Your task to perform on an android device: Show me popular games on the Play Store Image 0: 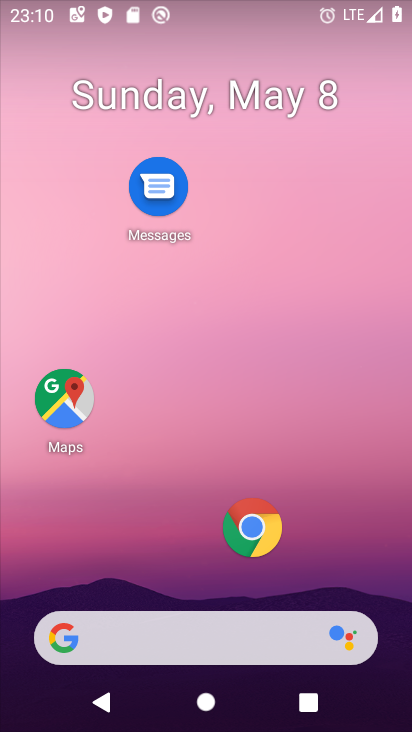
Step 0: drag from (190, 564) to (277, 6)
Your task to perform on an android device: Show me popular games on the Play Store Image 1: 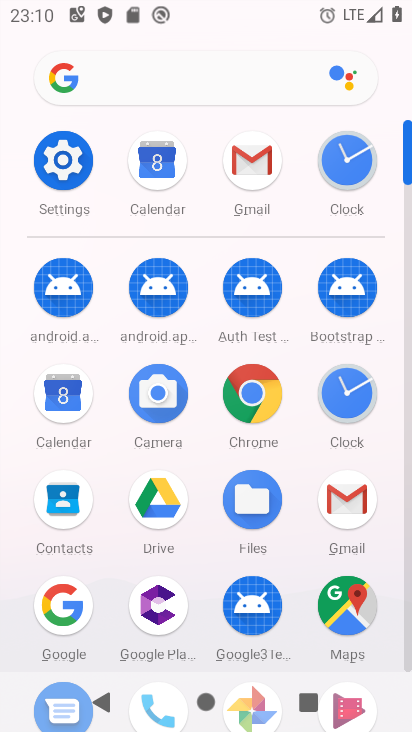
Step 1: drag from (207, 523) to (215, 182)
Your task to perform on an android device: Show me popular games on the Play Store Image 2: 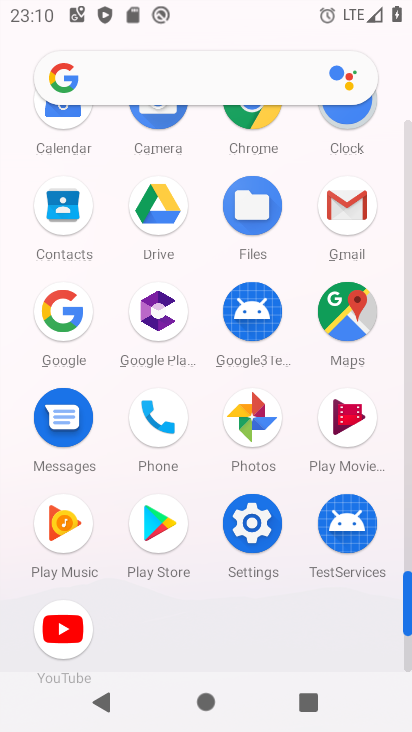
Step 2: click (157, 524)
Your task to perform on an android device: Show me popular games on the Play Store Image 3: 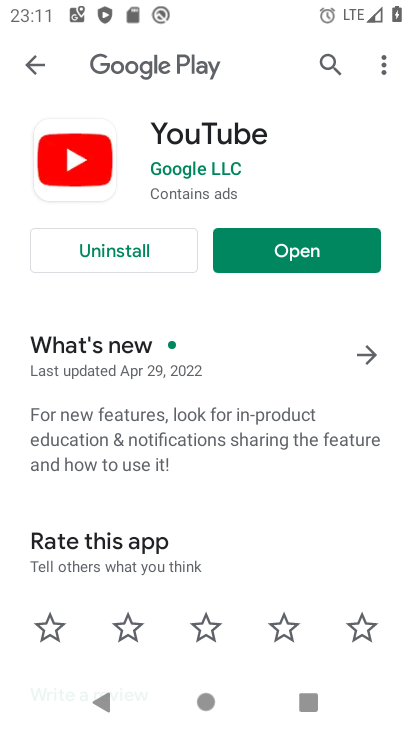
Step 3: press back button
Your task to perform on an android device: Show me popular games on the Play Store Image 4: 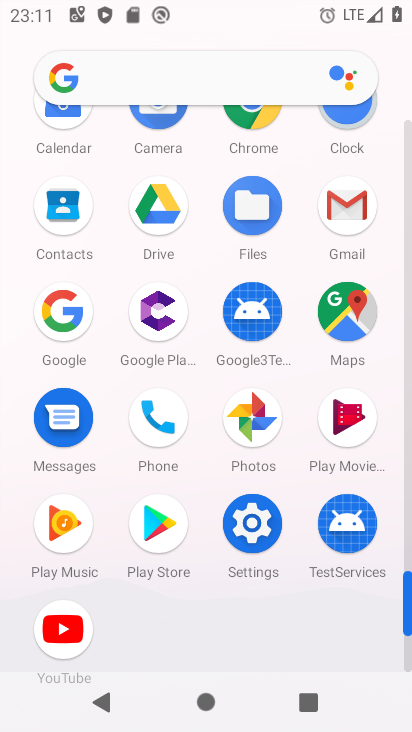
Step 4: click (163, 539)
Your task to perform on an android device: Show me popular games on the Play Store Image 5: 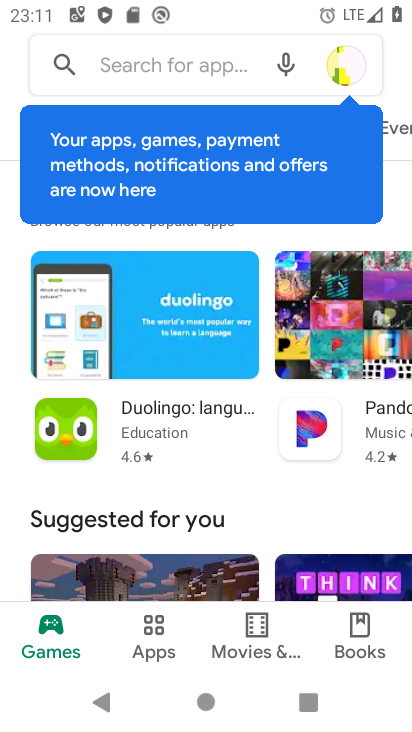
Step 5: drag from (271, 503) to (265, 203)
Your task to perform on an android device: Show me popular games on the Play Store Image 6: 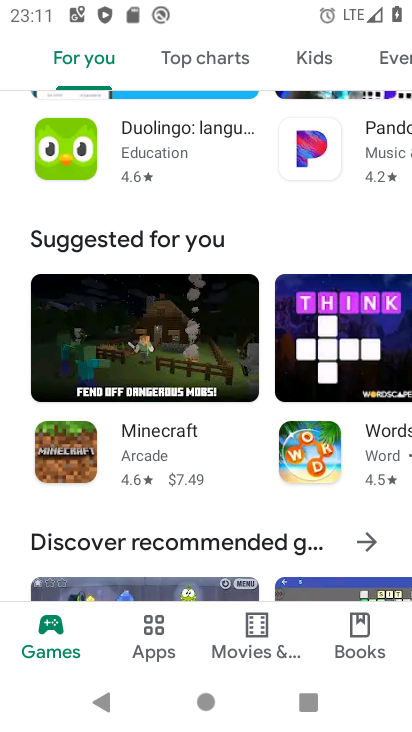
Step 6: drag from (253, 497) to (253, 69)
Your task to perform on an android device: Show me popular games on the Play Store Image 7: 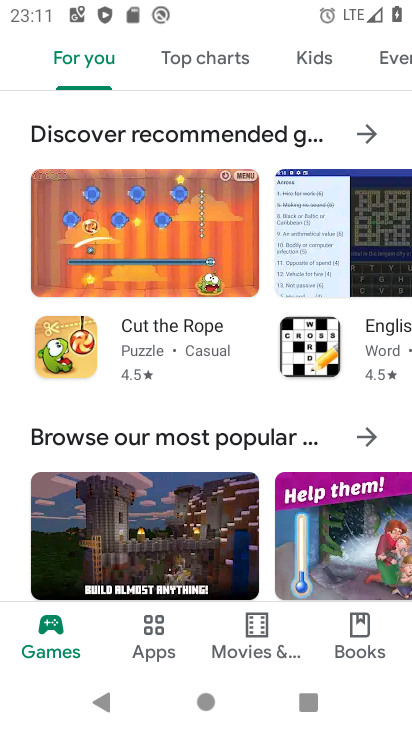
Step 7: click (362, 432)
Your task to perform on an android device: Show me popular games on the Play Store Image 8: 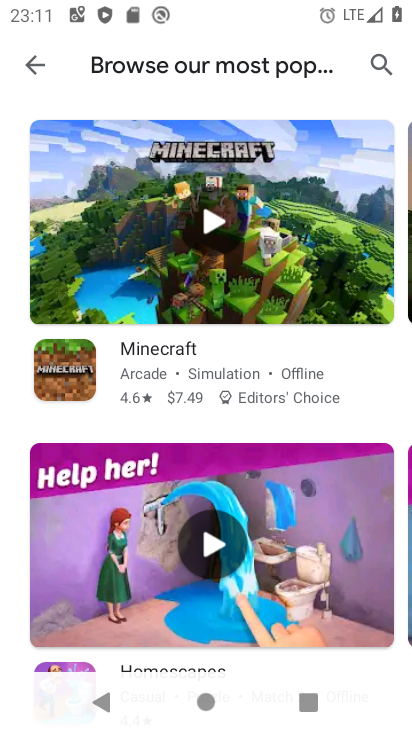
Step 8: task complete